Your task to perform on an android device: Open my contact list Image 0: 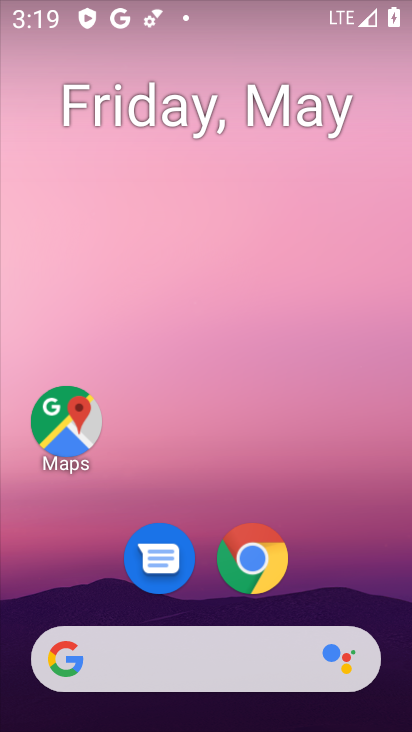
Step 0: press home button
Your task to perform on an android device: Open my contact list Image 1: 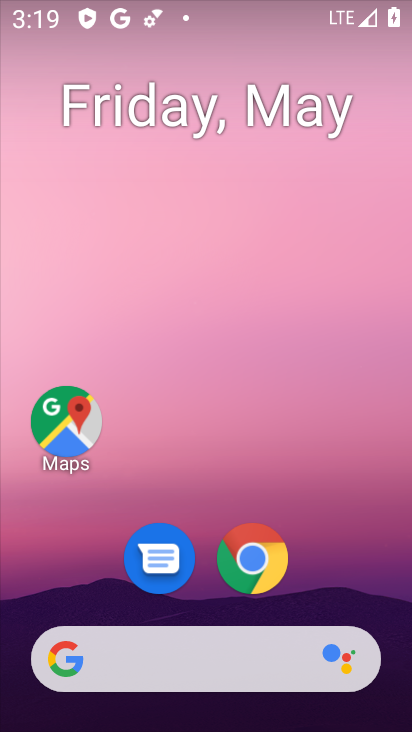
Step 1: drag from (288, 248) to (333, 117)
Your task to perform on an android device: Open my contact list Image 2: 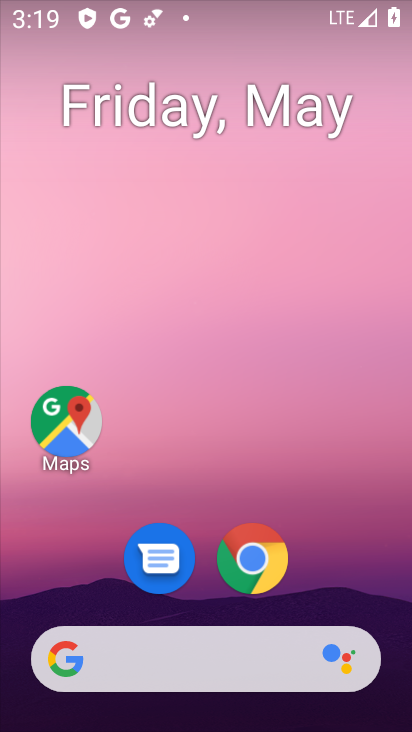
Step 2: drag from (167, 665) to (310, 201)
Your task to perform on an android device: Open my contact list Image 3: 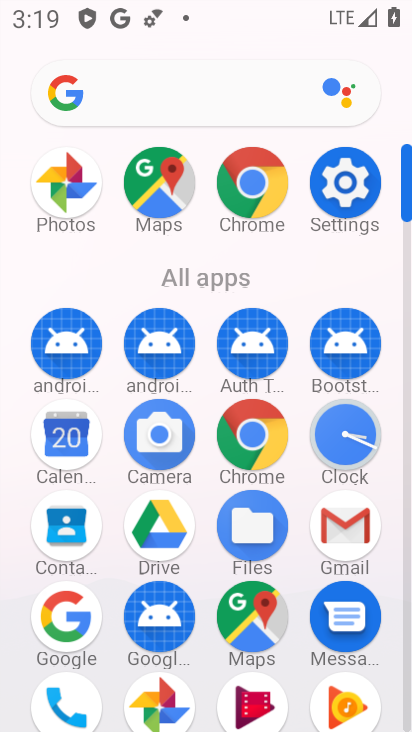
Step 3: click (67, 540)
Your task to perform on an android device: Open my contact list Image 4: 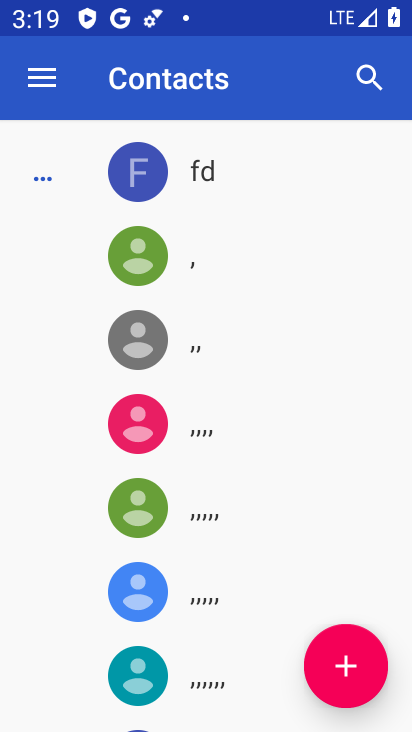
Step 4: task complete